Your task to perform on an android device: open a bookmark in the chrome app Image 0: 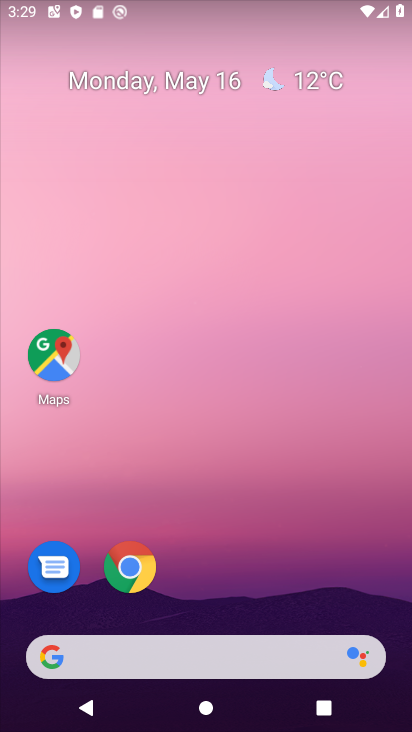
Step 0: drag from (287, 548) to (249, 44)
Your task to perform on an android device: open a bookmark in the chrome app Image 1: 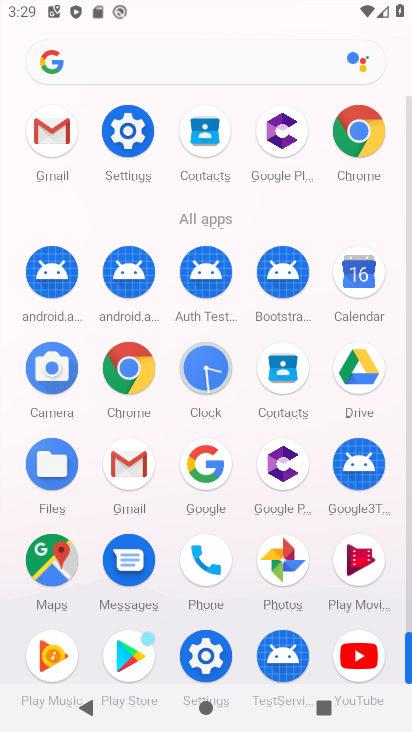
Step 1: drag from (10, 534) to (11, 205)
Your task to perform on an android device: open a bookmark in the chrome app Image 2: 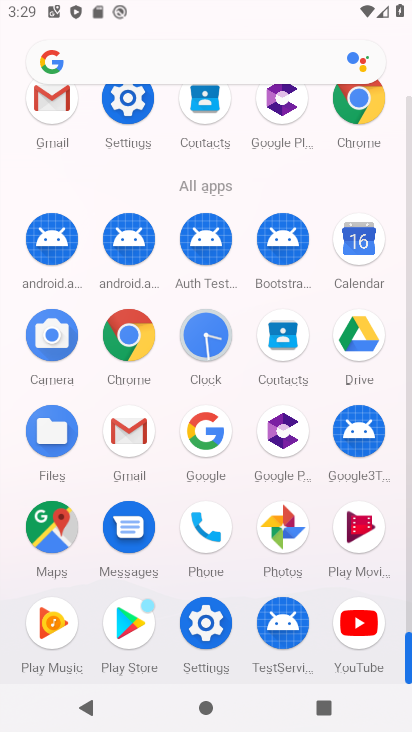
Step 2: click (128, 332)
Your task to perform on an android device: open a bookmark in the chrome app Image 3: 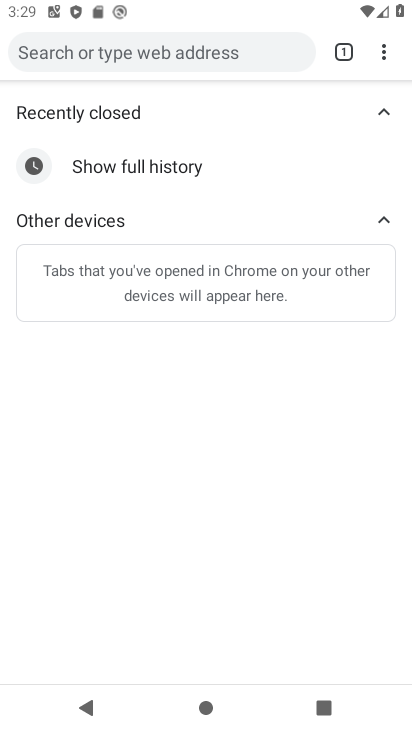
Step 3: task complete